Your task to perform on an android device: Go to eBay Image 0: 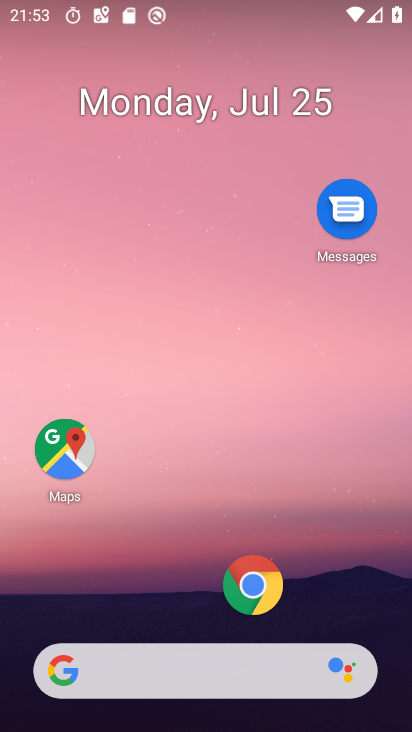
Step 0: click (252, 596)
Your task to perform on an android device: Go to eBay Image 1: 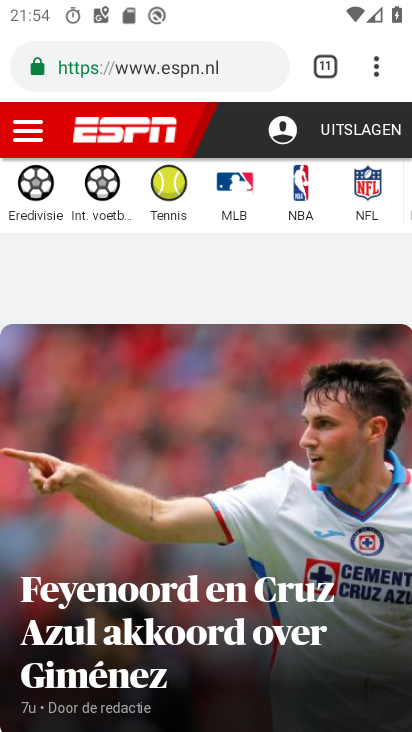
Step 1: drag from (377, 70) to (175, 129)
Your task to perform on an android device: Go to eBay Image 2: 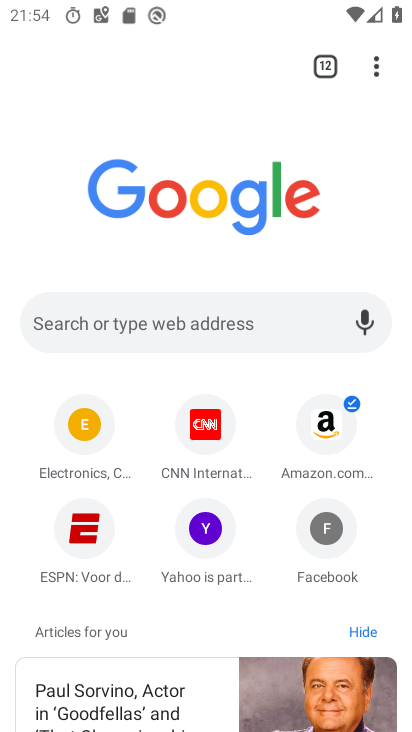
Step 2: click (82, 445)
Your task to perform on an android device: Go to eBay Image 3: 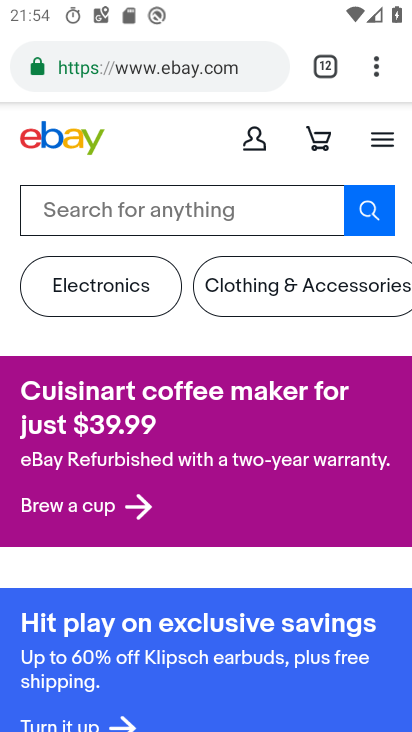
Step 3: task complete